Your task to perform on an android device: turn on airplane mode Image 0: 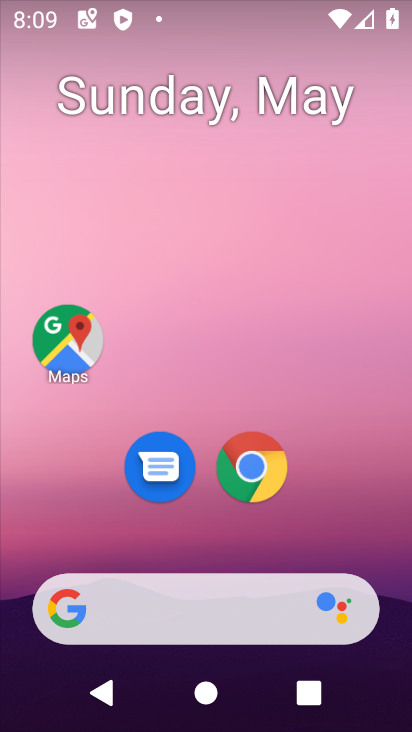
Step 0: drag from (256, 12) to (226, 571)
Your task to perform on an android device: turn on airplane mode Image 1: 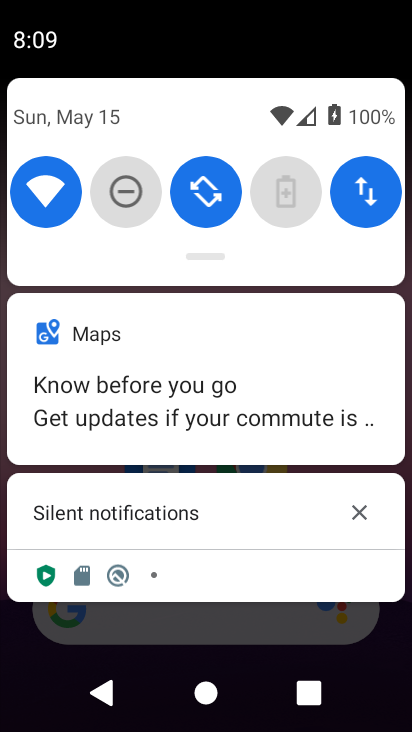
Step 1: drag from (197, 112) to (268, 601)
Your task to perform on an android device: turn on airplane mode Image 2: 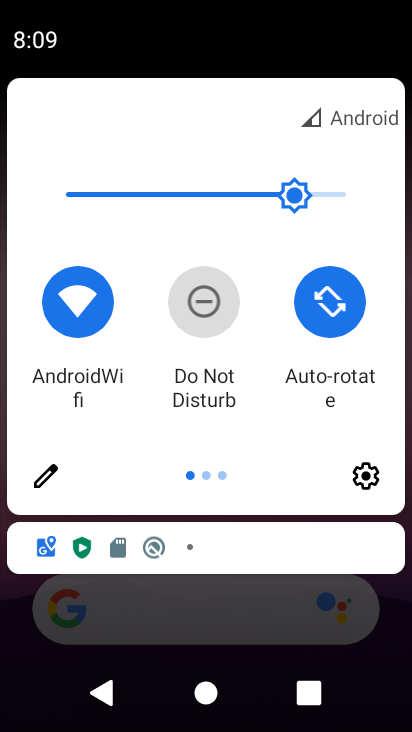
Step 2: drag from (363, 420) to (32, 431)
Your task to perform on an android device: turn on airplane mode Image 3: 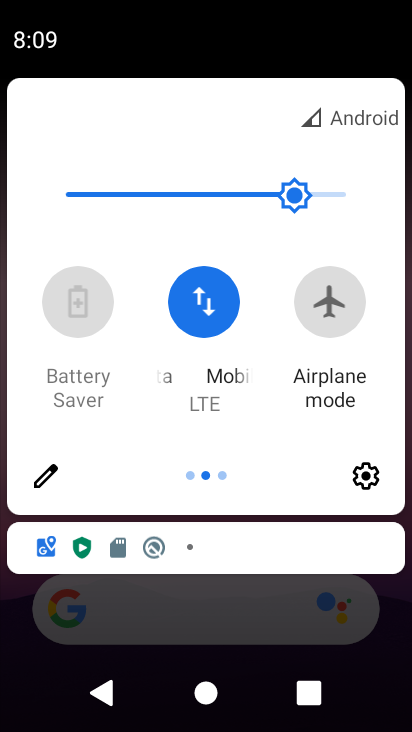
Step 3: click (348, 333)
Your task to perform on an android device: turn on airplane mode Image 4: 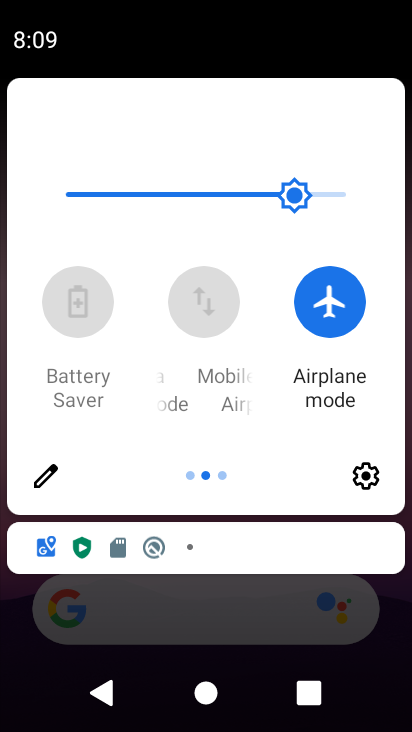
Step 4: task complete